Your task to perform on an android device: Open the stopwatch Image 0: 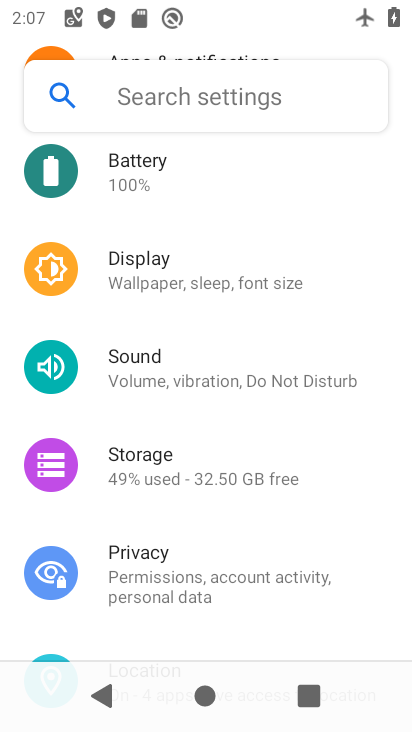
Step 0: press home button
Your task to perform on an android device: Open the stopwatch Image 1: 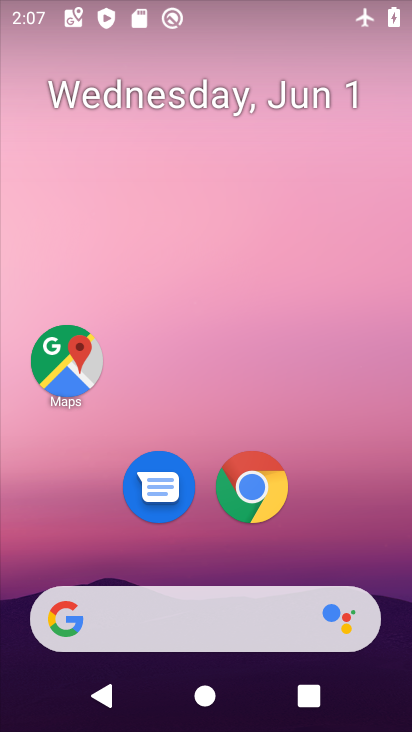
Step 1: drag from (357, 525) to (338, 194)
Your task to perform on an android device: Open the stopwatch Image 2: 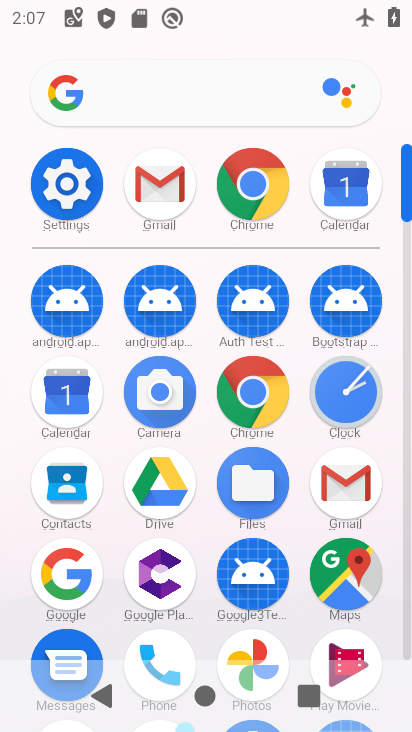
Step 2: click (349, 409)
Your task to perform on an android device: Open the stopwatch Image 3: 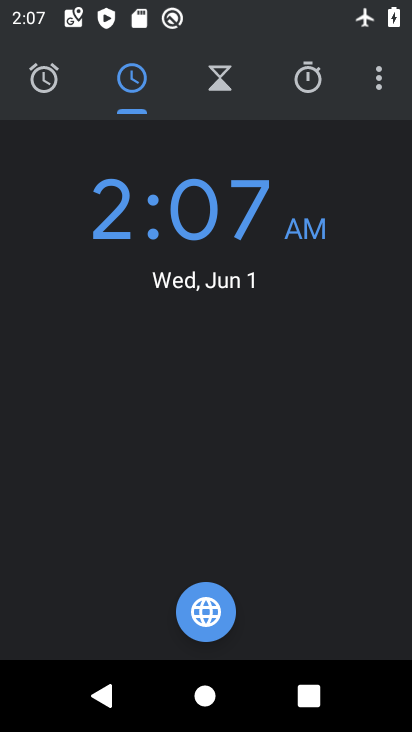
Step 3: click (314, 89)
Your task to perform on an android device: Open the stopwatch Image 4: 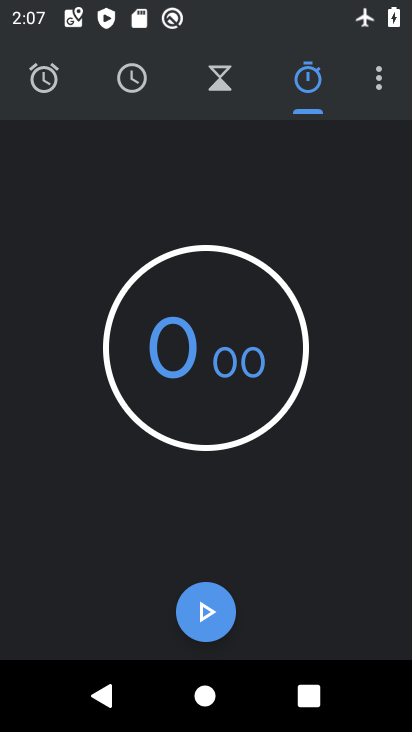
Step 4: task complete